Your task to perform on an android device: Do I have any events tomorrow? Image 0: 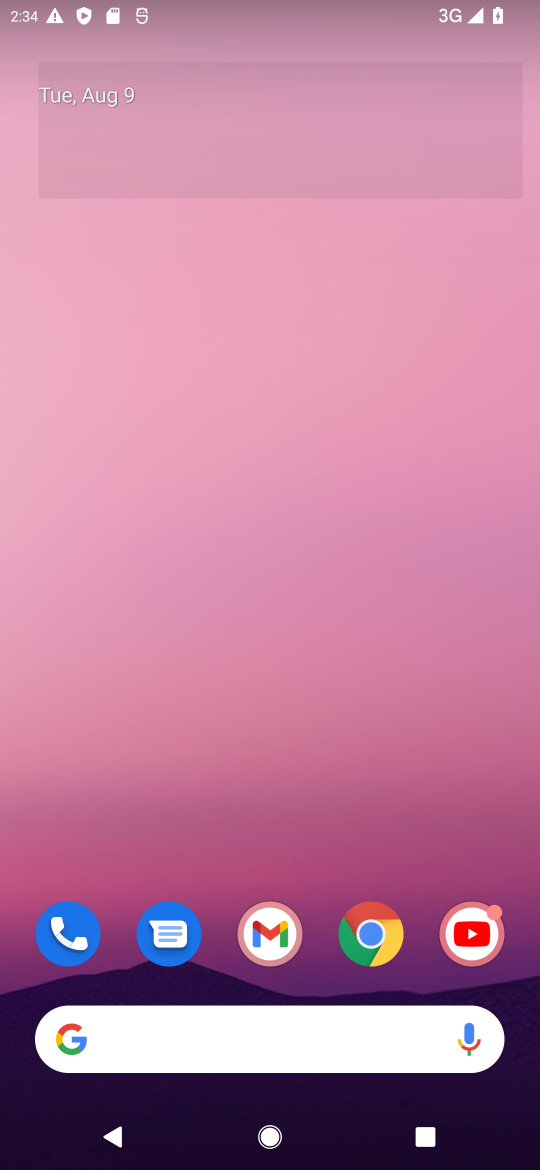
Step 0: drag from (328, 989) to (395, 1)
Your task to perform on an android device: Do I have any events tomorrow? Image 1: 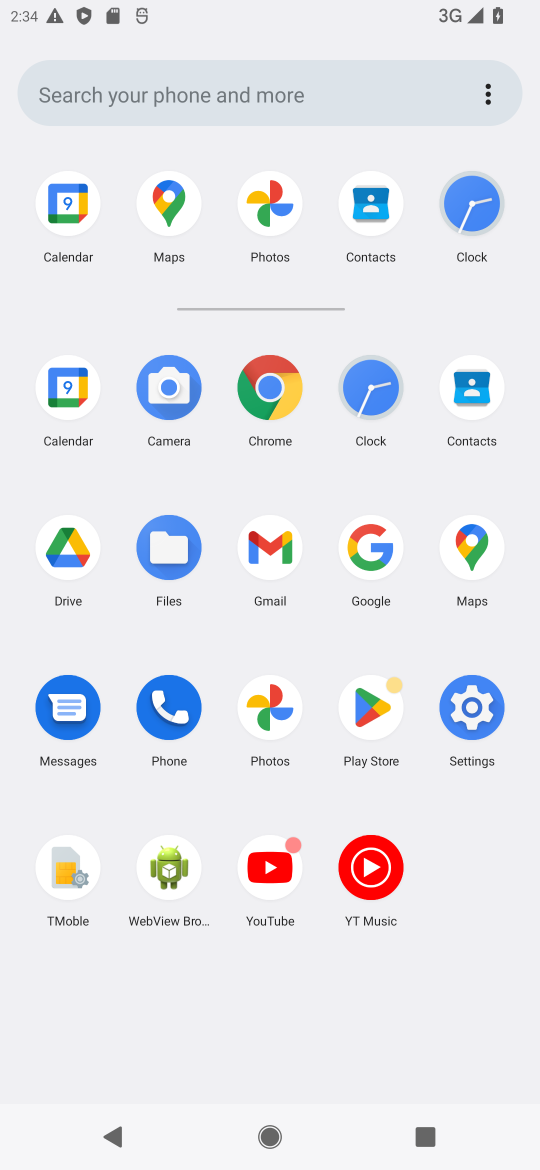
Step 1: click (50, 435)
Your task to perform on an android device: Do I have any events tomorrow? Image 2: 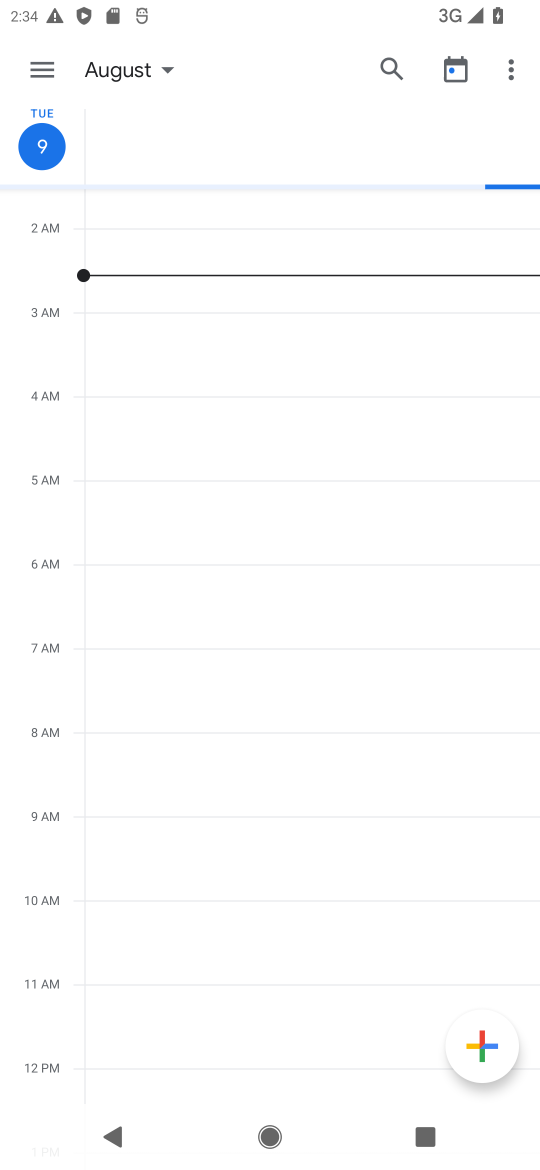
Step 2: task complete